Your task to perform on an android device: Toggle the flashlight Image 0: 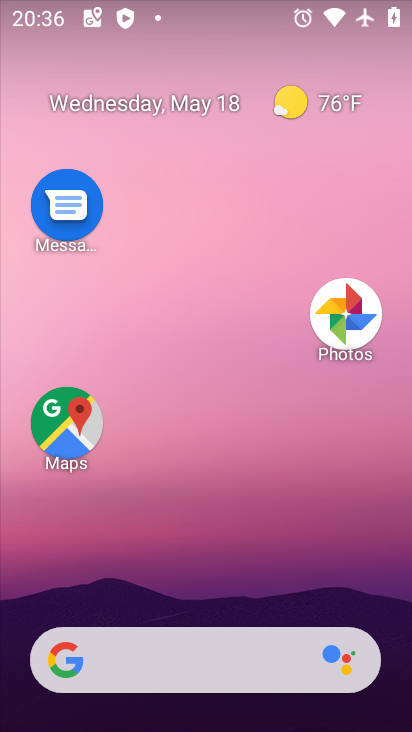
Step 0: drag from (242, 630) to (178, 57)
Your task to perform on an android device: Toggle the flashlight Image 1: 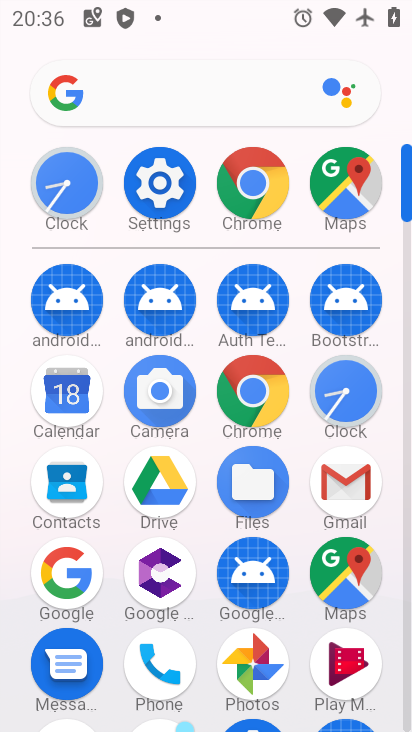
Step 1: click (166, 191)
Your task to perform on an android device: Toggle the flashlight Image 2: 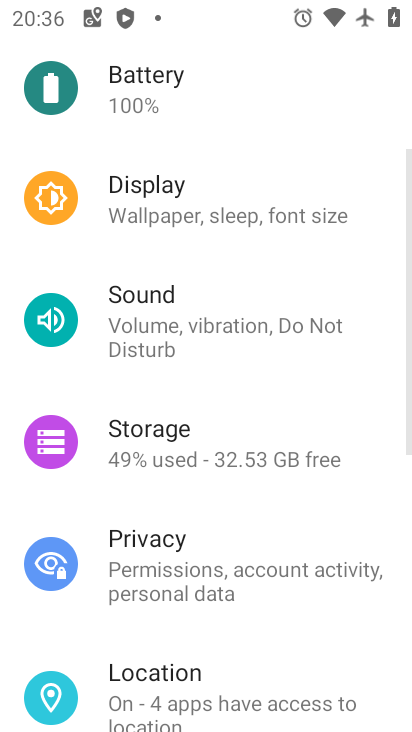
Step 2: task complete